Your task to perform on an android device: open wifi settings Image 0: 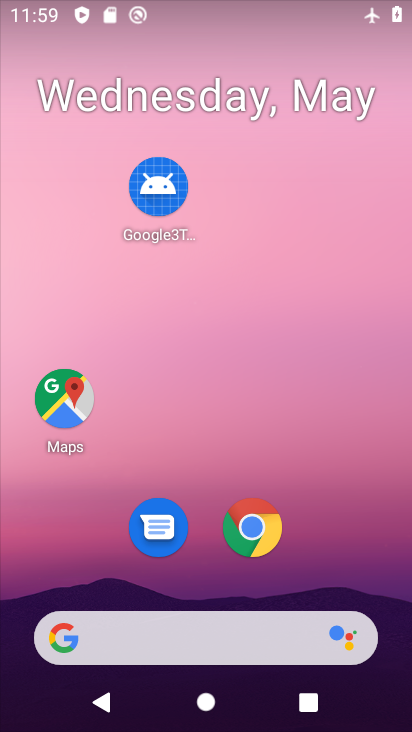
Step 0: press home button
Your task to perform on an android device: open wifi settings Image 1: 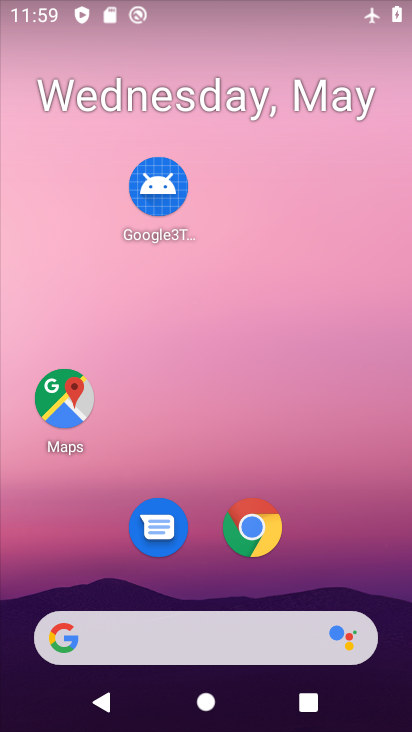
Step 1: drag from (198, 597) to (260, 102)
Your task to perform on an android device: open wifi settings Image 2: 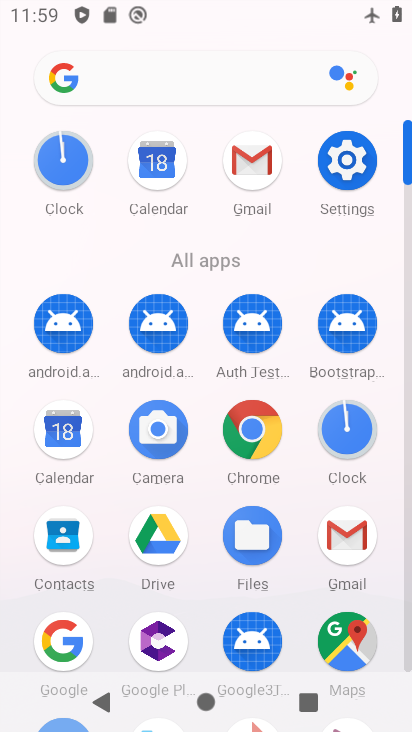
Step 2: click (336, 157)
Your task to perform on an android device: open wifi settings Image 3: 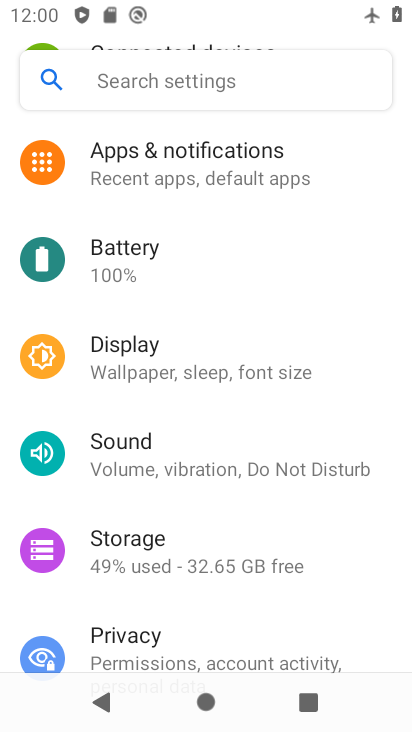
Step 3: drag from (198, 156) to (212, 602)
Your task to perform on an android device: open wifi settings Image 4: 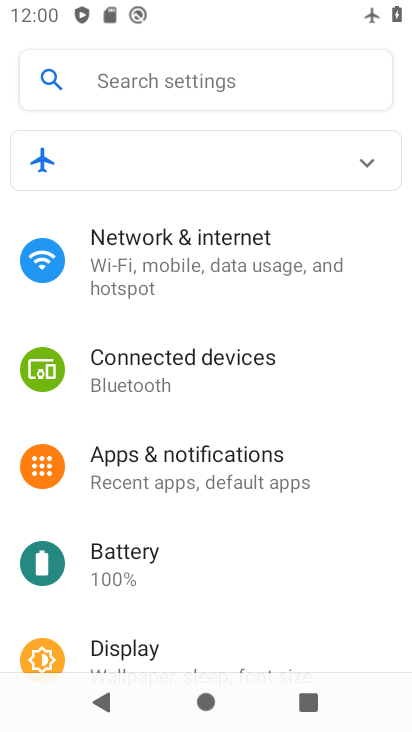
Step 4: click (159, 274)
Your task to perform on an android device: open wifi settings Image 5: 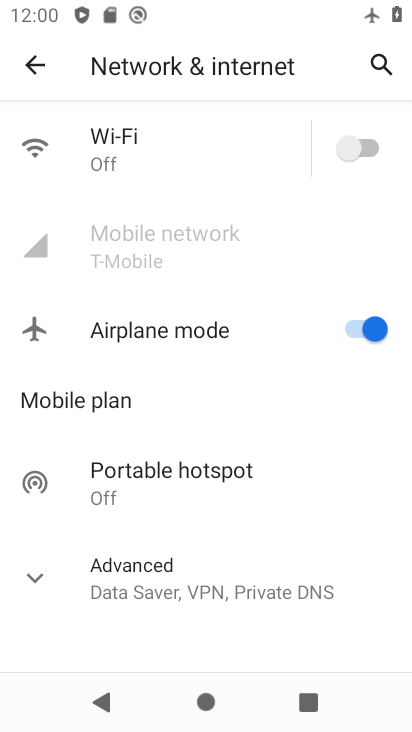
Step 5: click (178, 130)
Your task to perform on an android device: open wifi settings Image 6: 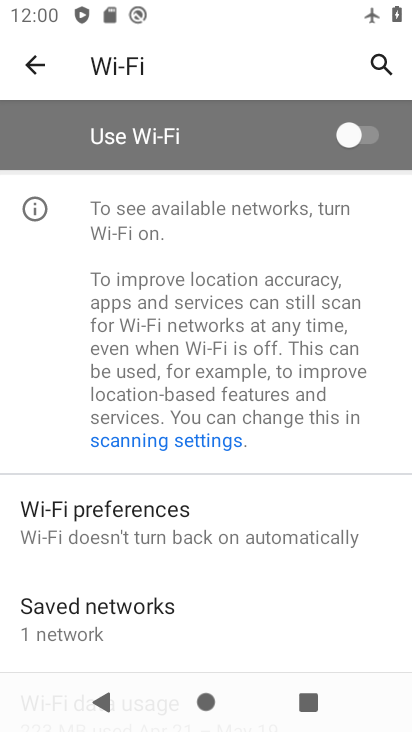
Step 6: click (352, 127)
Your task to perform on an android device: open wifi settings Image 7: 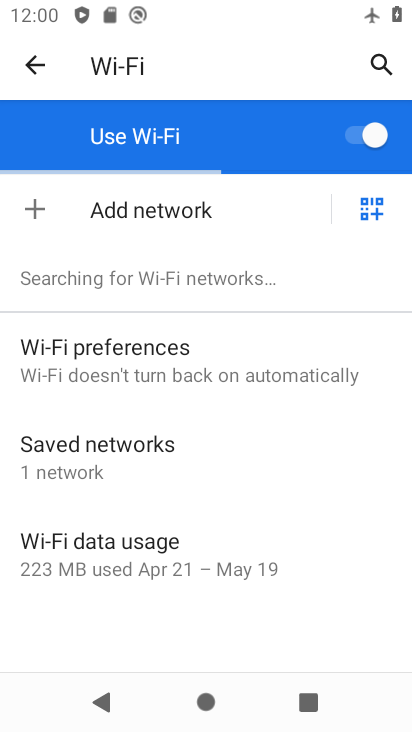
Step 7: task complete